Your task to perform on an android device: turn off sleep mode Image 0: 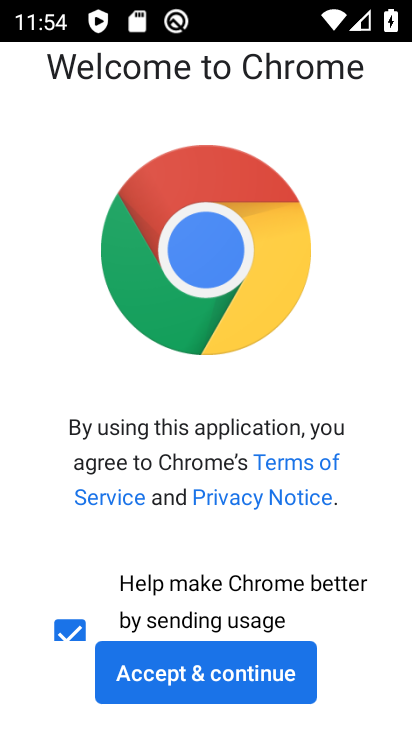
Step 0: press back button
Your task to perform on an android device: turn off sleep mode Image 1: 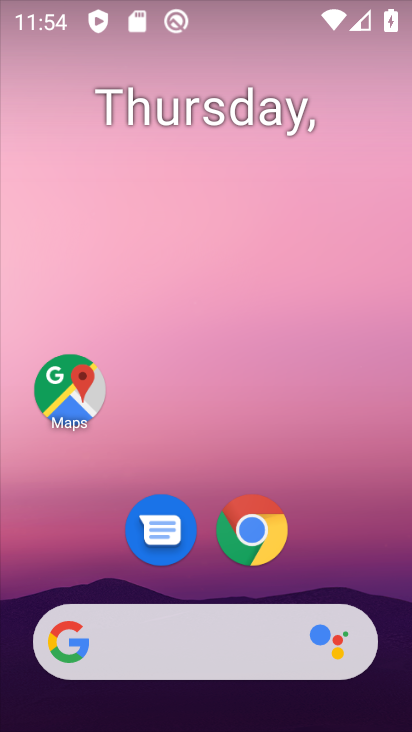
Step 1: drag from (91, 597) to (269, 28)
Your task to perform on an android device: turn off sleep mode Image 2: 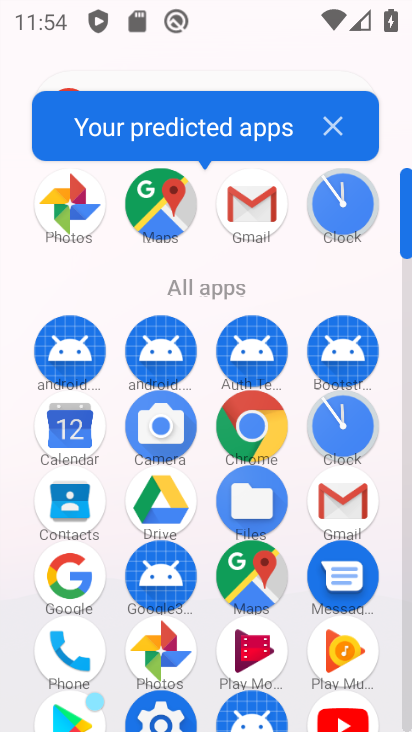
Step 2: drag from (247, 533) to (285, 361)
Your task to perform on an android device: turn off sleep mode Image 3: 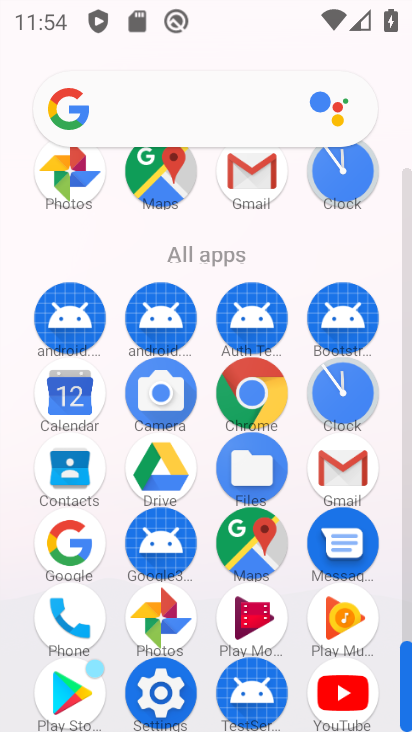
Step 3: click (130, 711)
Your task to perform on an android device: turn off sleep mode Image 4: 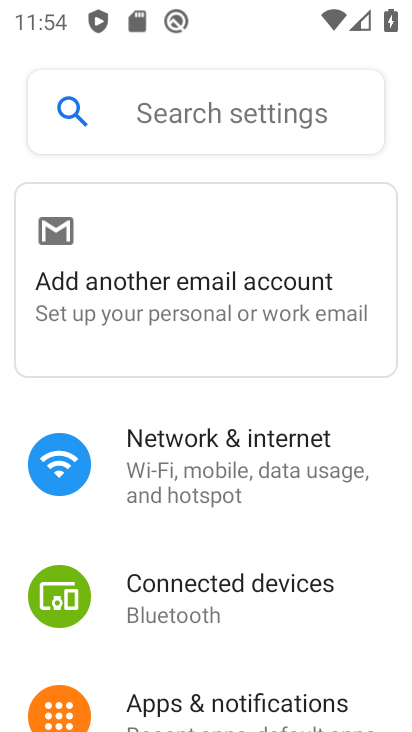
Step 4: drag from (177, 654) to (276, 294)
Your task to perform on an android device: turn off sleep mode Image 5: 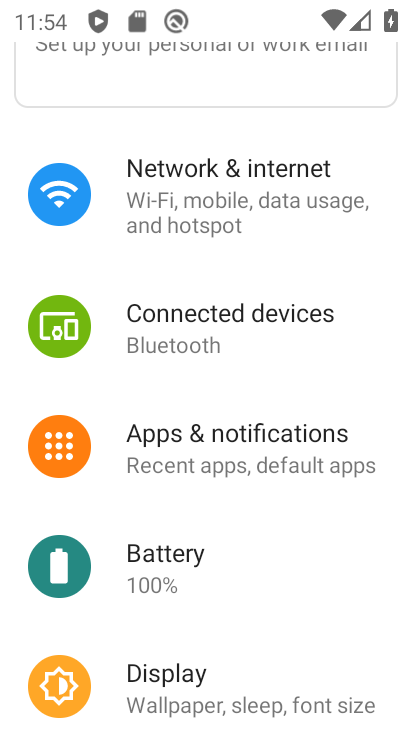
Step 5: drag from (203, 646) to (282, 322)
Your task to perform on an android device: turn off sleep mode Image 6: 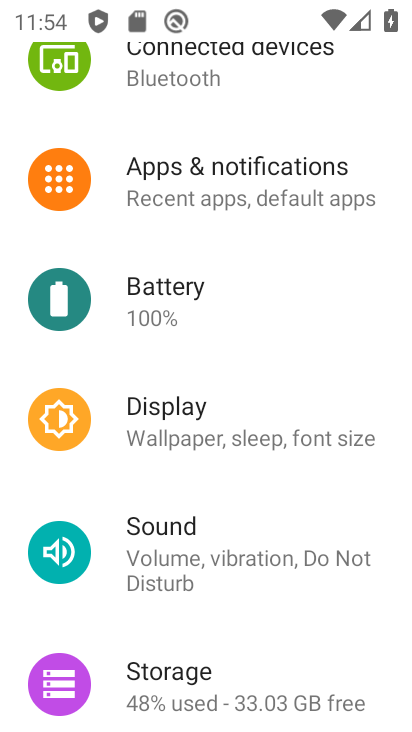
Step 6: click (217, 420)
Your task to perform on an android device: turn off sleep mode Image 7: 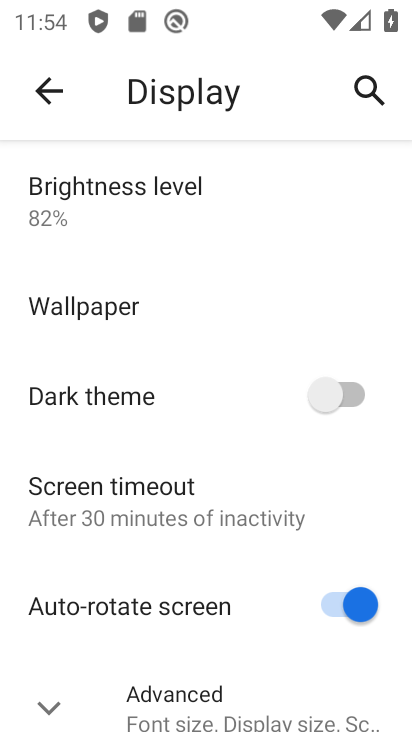
Step 7: click (211, 709)
Your task to perform on an android device: turn off sleep mode Image 8: 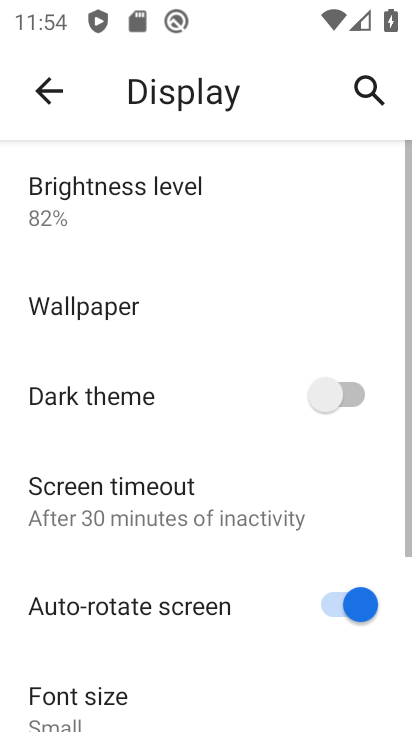
Step 8: task complete